Your task to perform on an android device: Open settings Image 0: 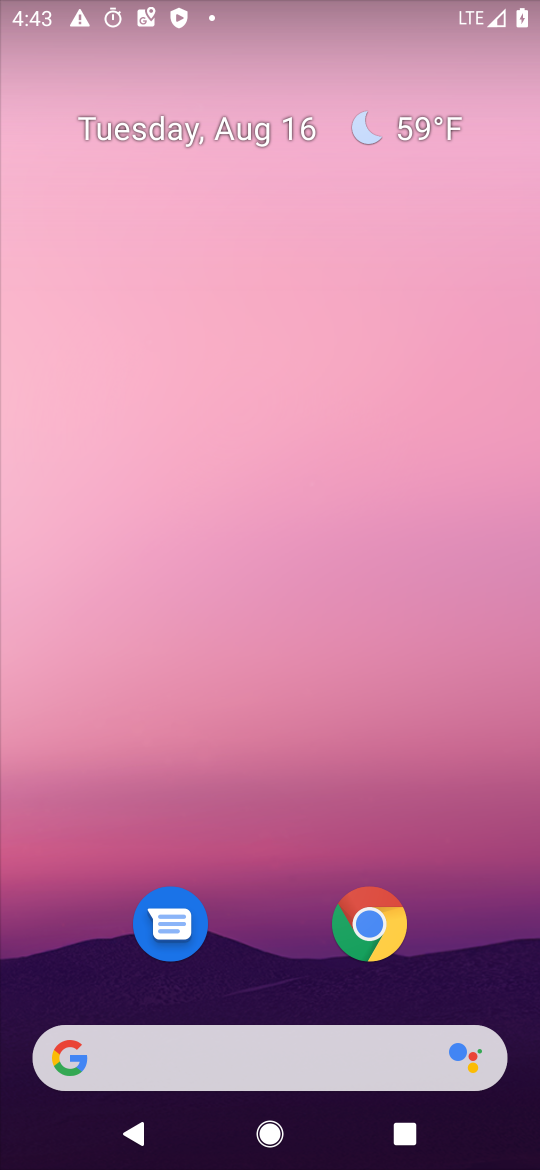
Step 0: click (274, 159)
Your task to perform on an android device: Open settings Image 1: 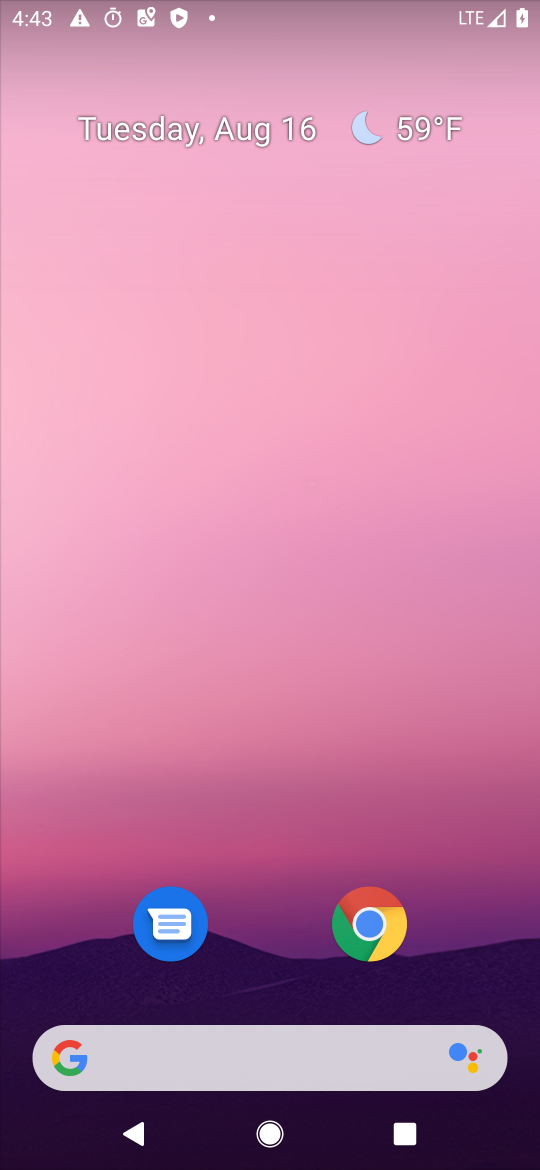
Step 1: drag from (254, 954) to (281, 70)
Your task to perform on an android device: Open settings Image 2: 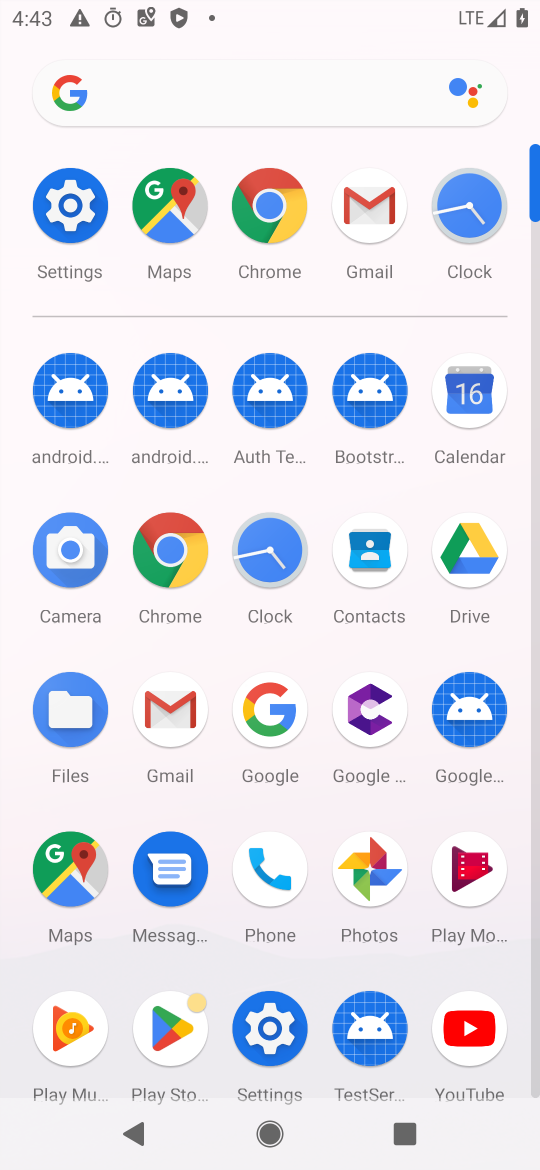
Step 2: click (58, 285)
Your task to perform on an android device: Open settings Image 3: 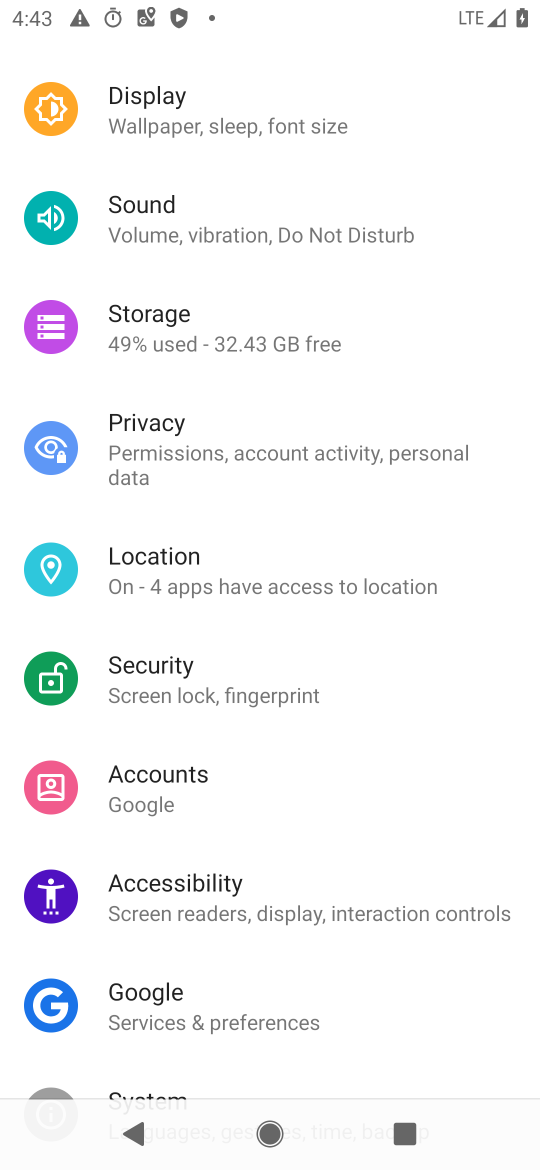
Step 3: task complete